Your task to perform on an android device: Add "usb-a to usb-b" to the cart on walmart.com, then select checkout. Image 0: 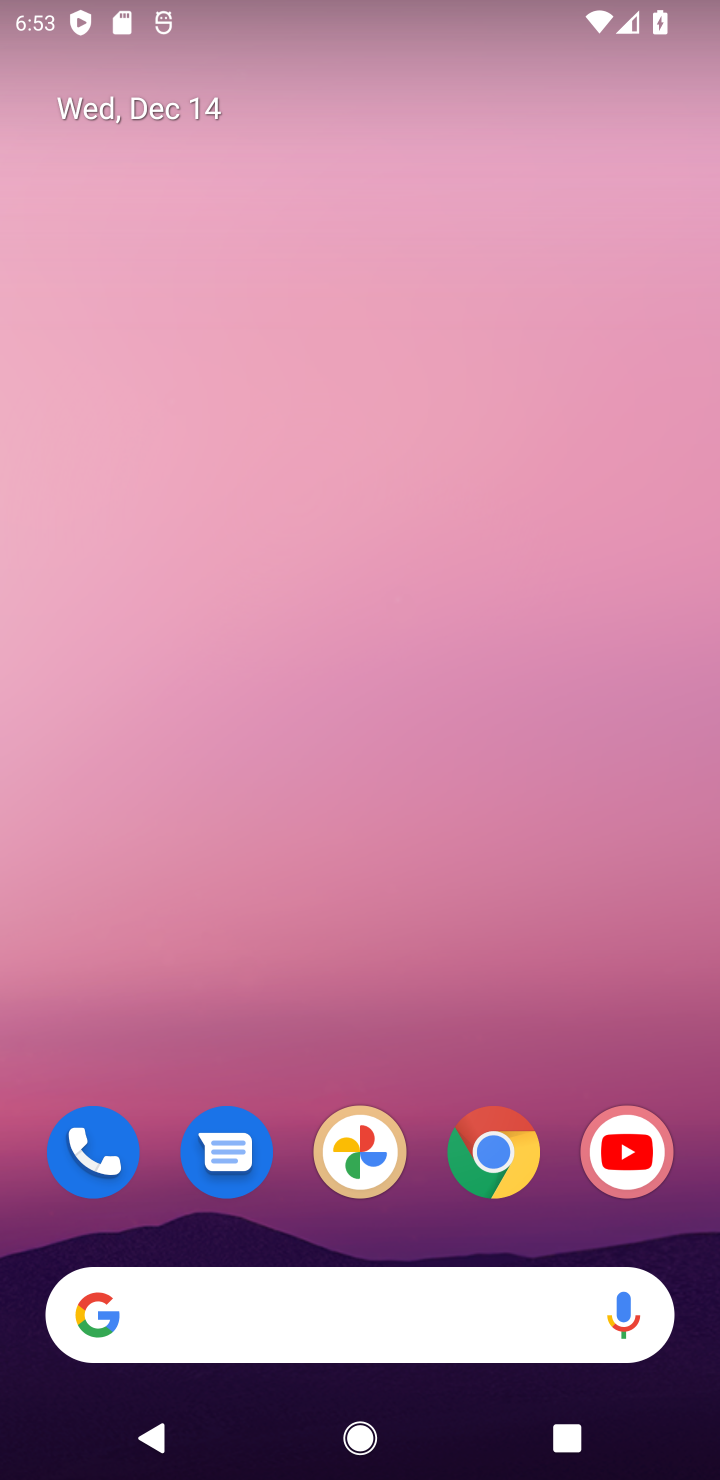
Step 0: click (495, 1163)
Your task to perform on an android device: Add "usb-a to usb-b" to the cart on walmart.com, then select checkout. Image 1: 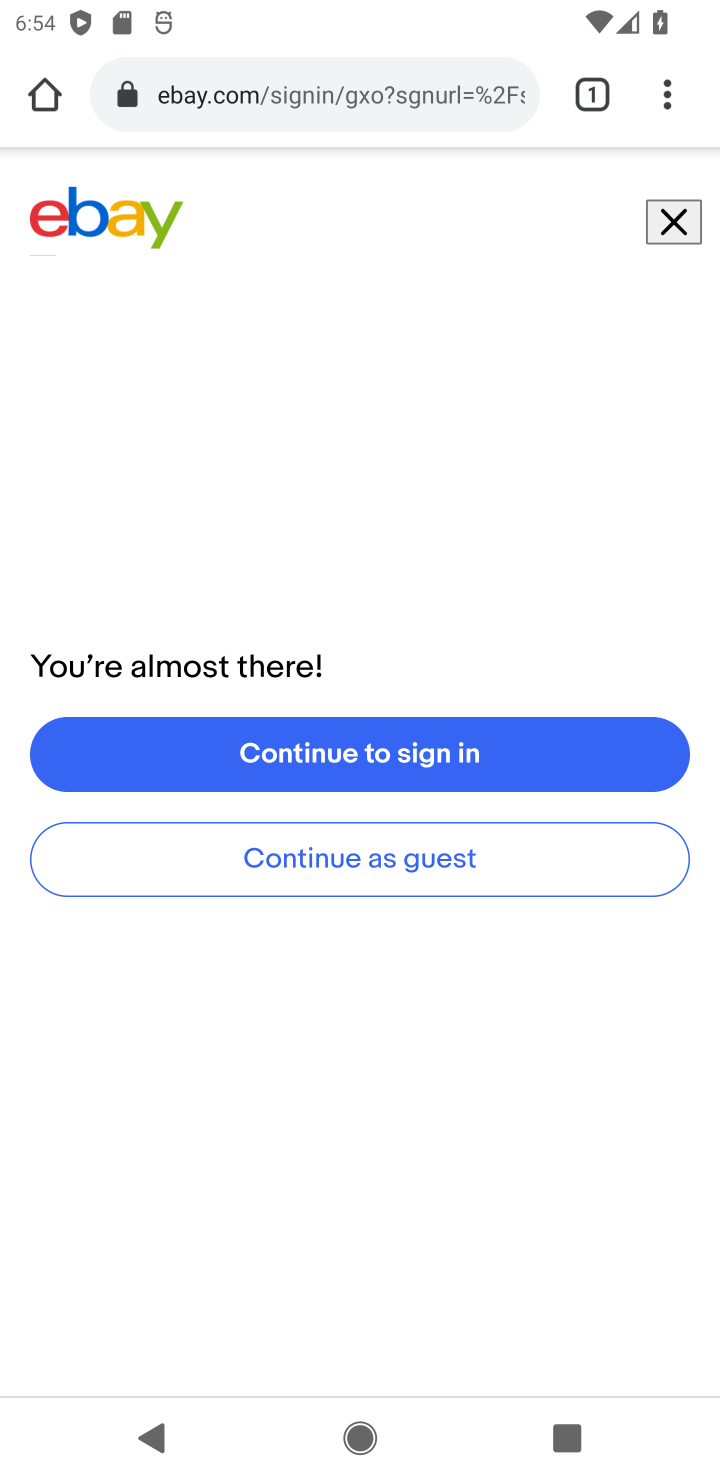
Step 1: click (280, 93)
Your task to perform on an android device: Add "usb-a to usb-b" to the cart on walmart.com, then select checkout. Image 2: 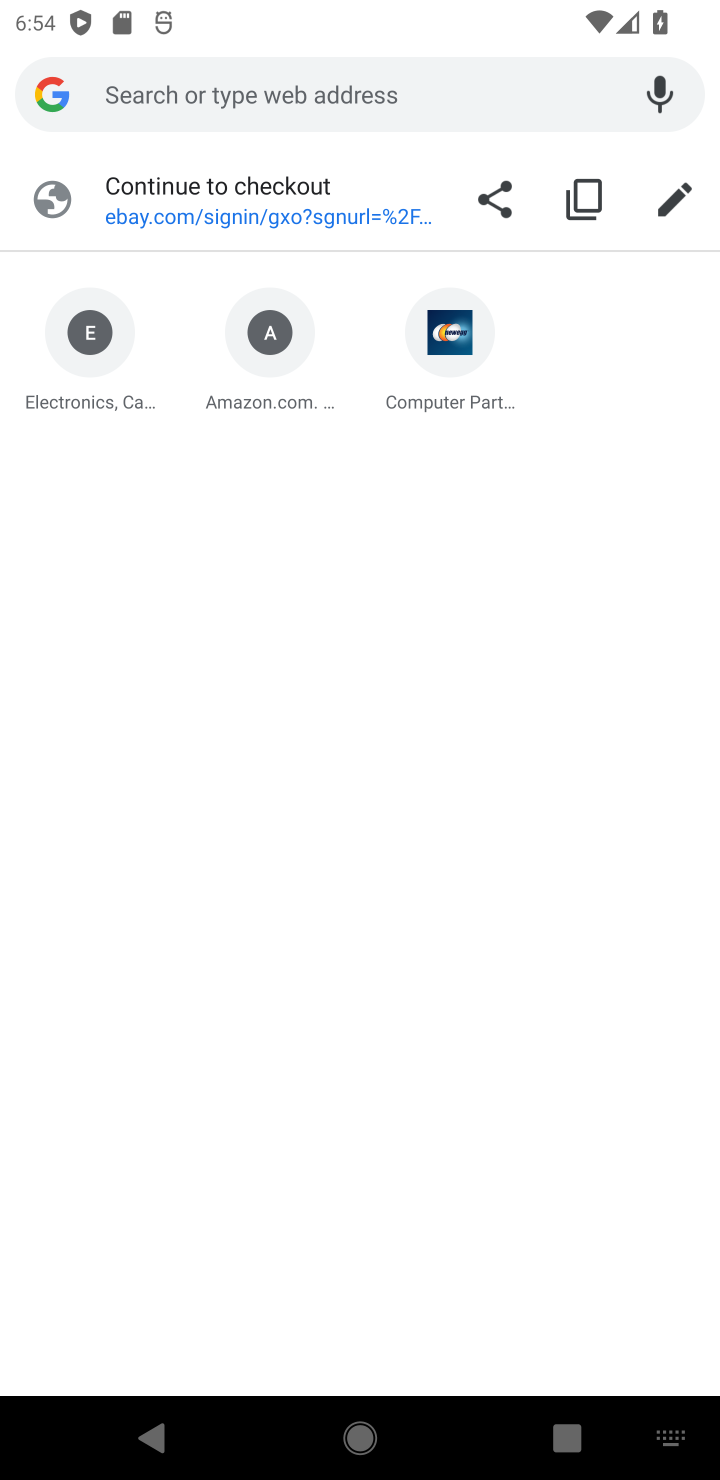
Step 2: type "walmart.com"
Your task to perform on an android device: Add "usb-a to usb-b" to the cart on walmart.com, then select checkout. Image 3: 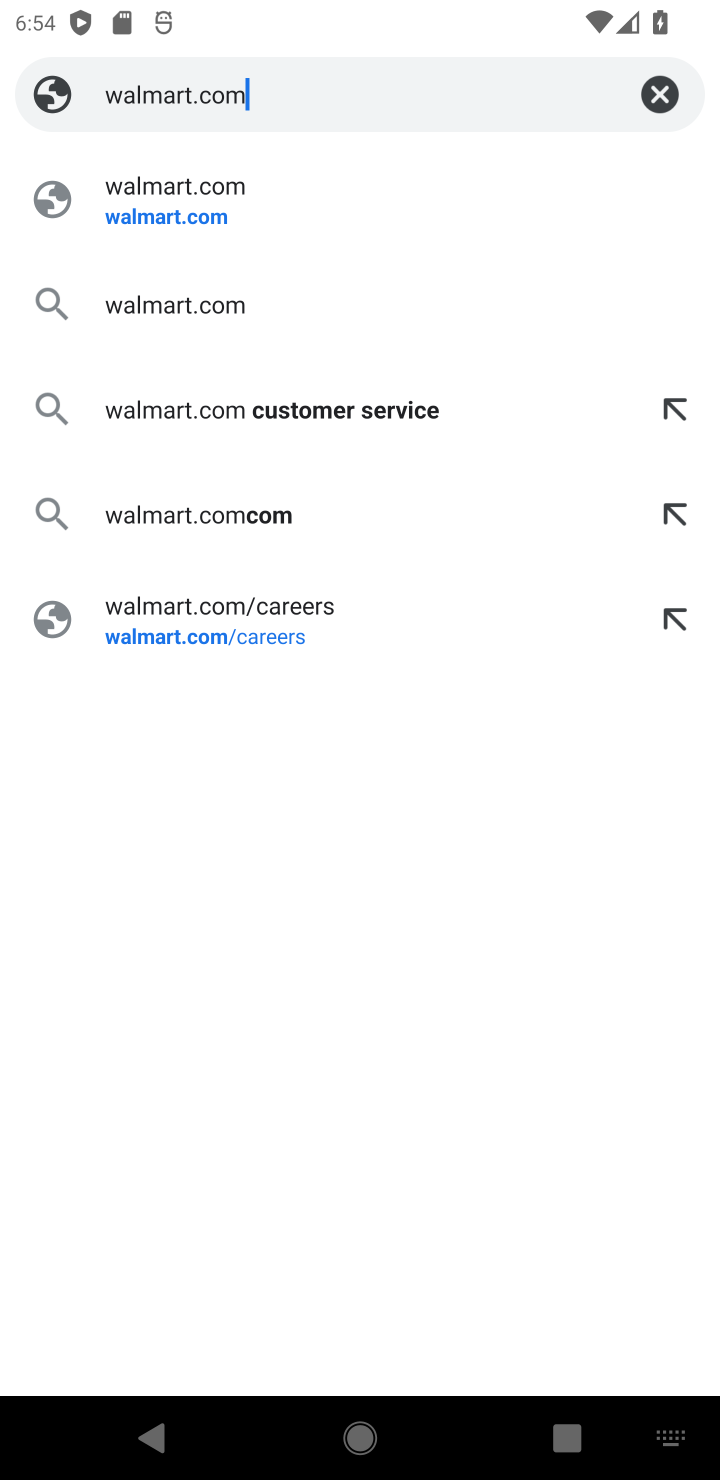
Step 3: click (151, 211)
Your task to perform on an android device: Add "usb-a to usb-b" to the cart on walmart.com, then select checkout. Image 4: 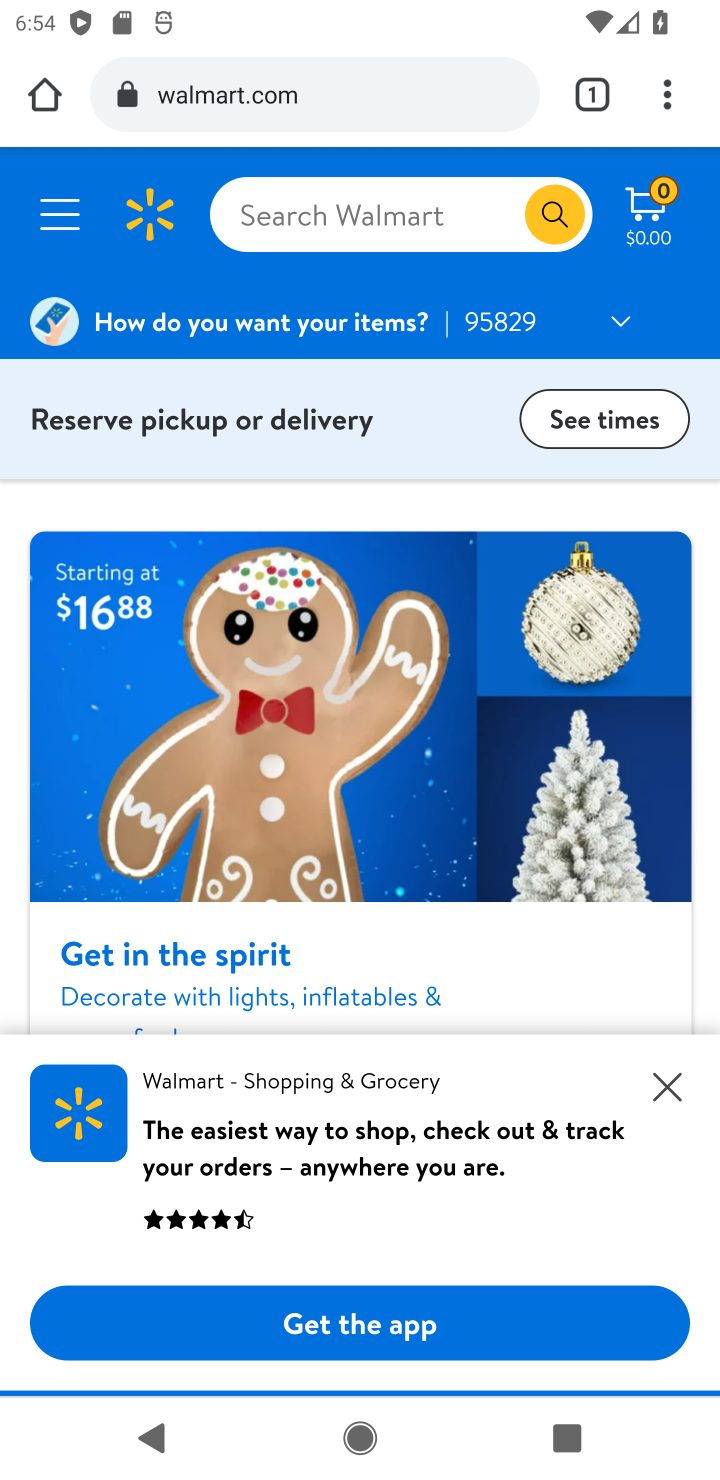
Step 4: click (278, 211)
Your task to perform on an android device: Add "usb-a to usb-b" to the cart on walmart.com, then select checkout. Image 5: 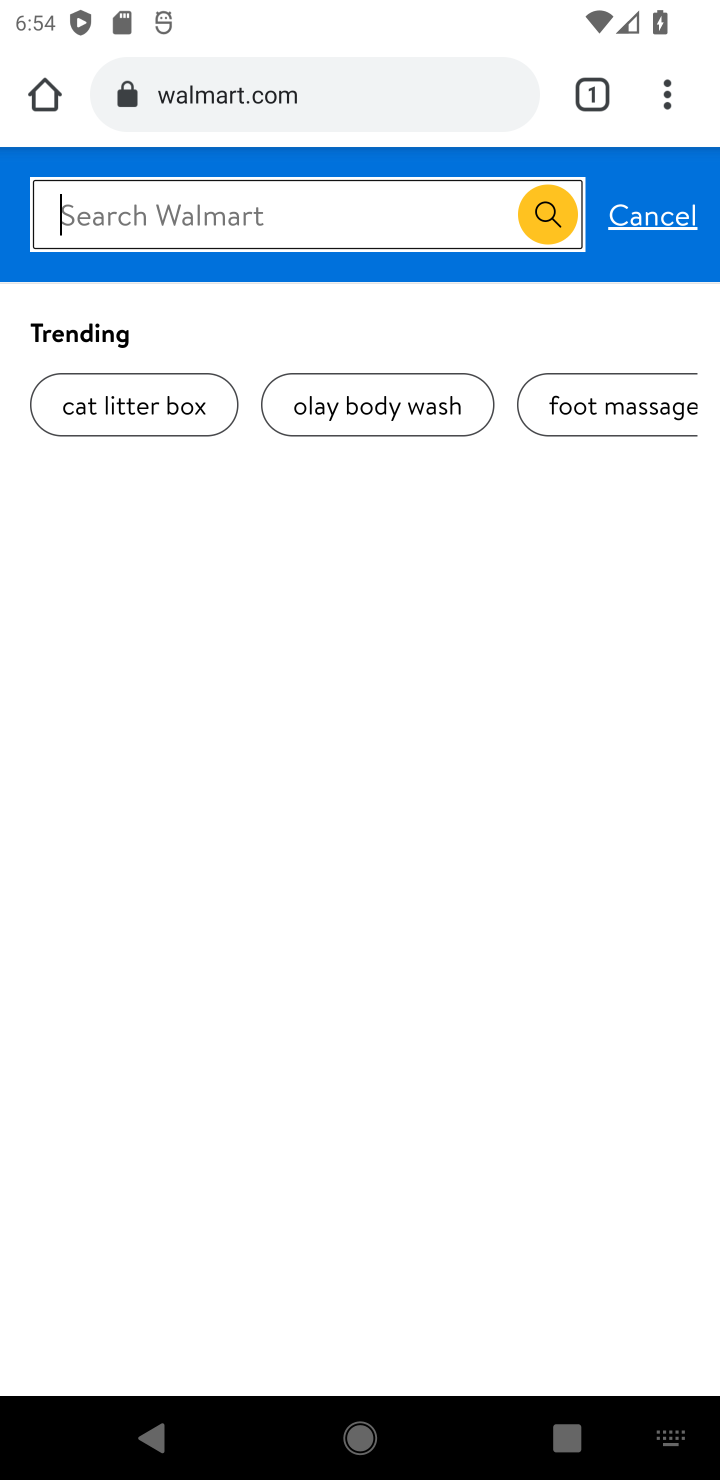
Step 5: type "usb-a to usb-b"
Your task to perform on an android device: Add "usb-a to usb-b" to the cart on walmart.com, then select checkout. Image 6: 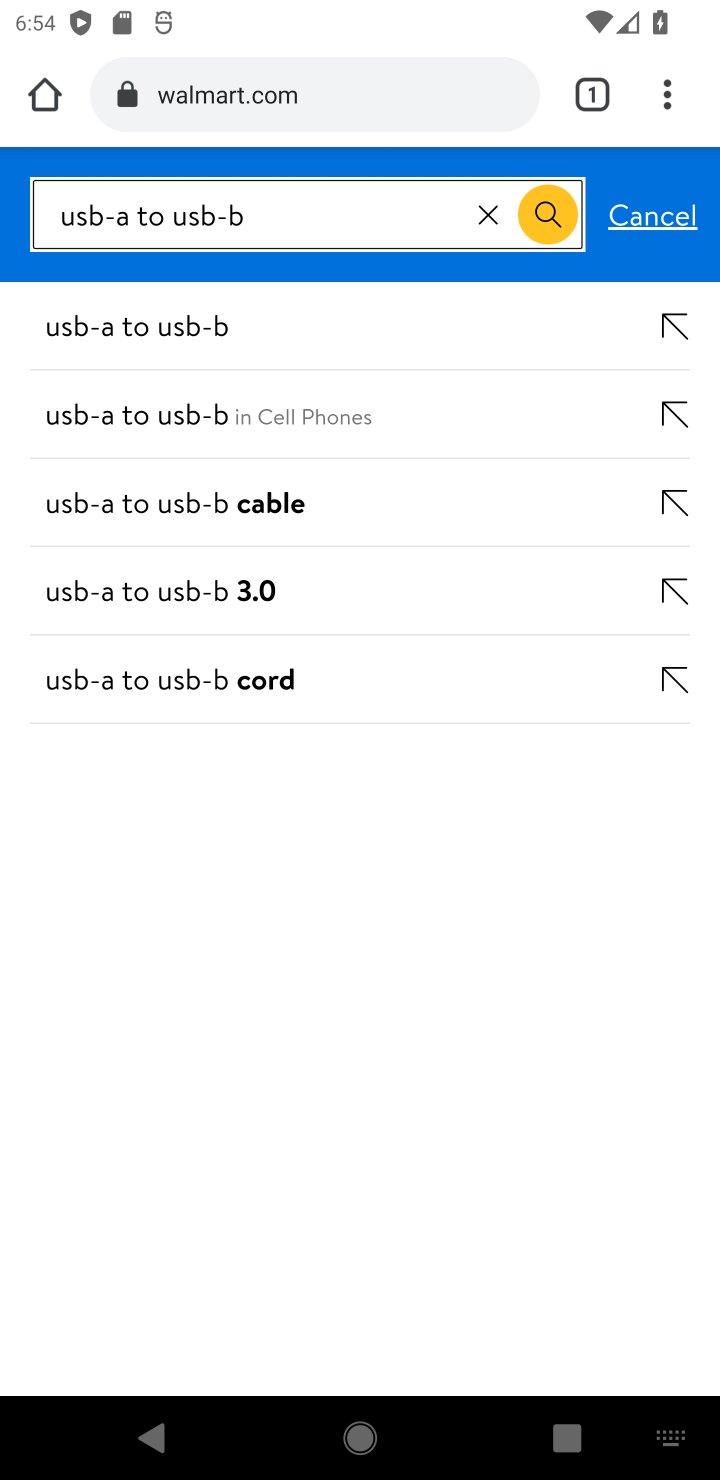
Step 6: click (199, 341)
Your task to perform on an android device: Add "usb-a to usb-b" to the cart on walmart.com, then select checkout. Image 7: 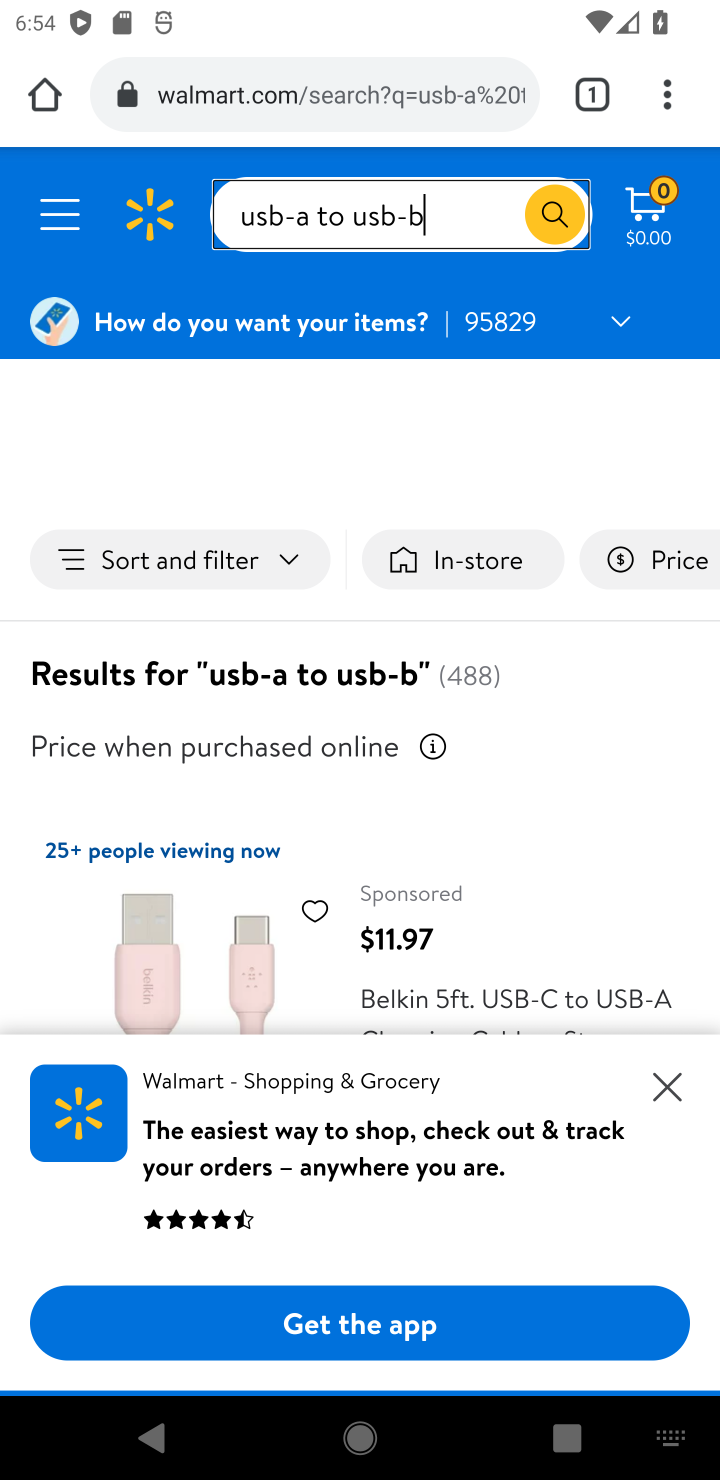
Step 7: drag from (480, 884) to (490, 422)
Your task to perform on an android device: Add "usb-a to usb-b" to the cart on walmart.com, then select checkout. Image 8: 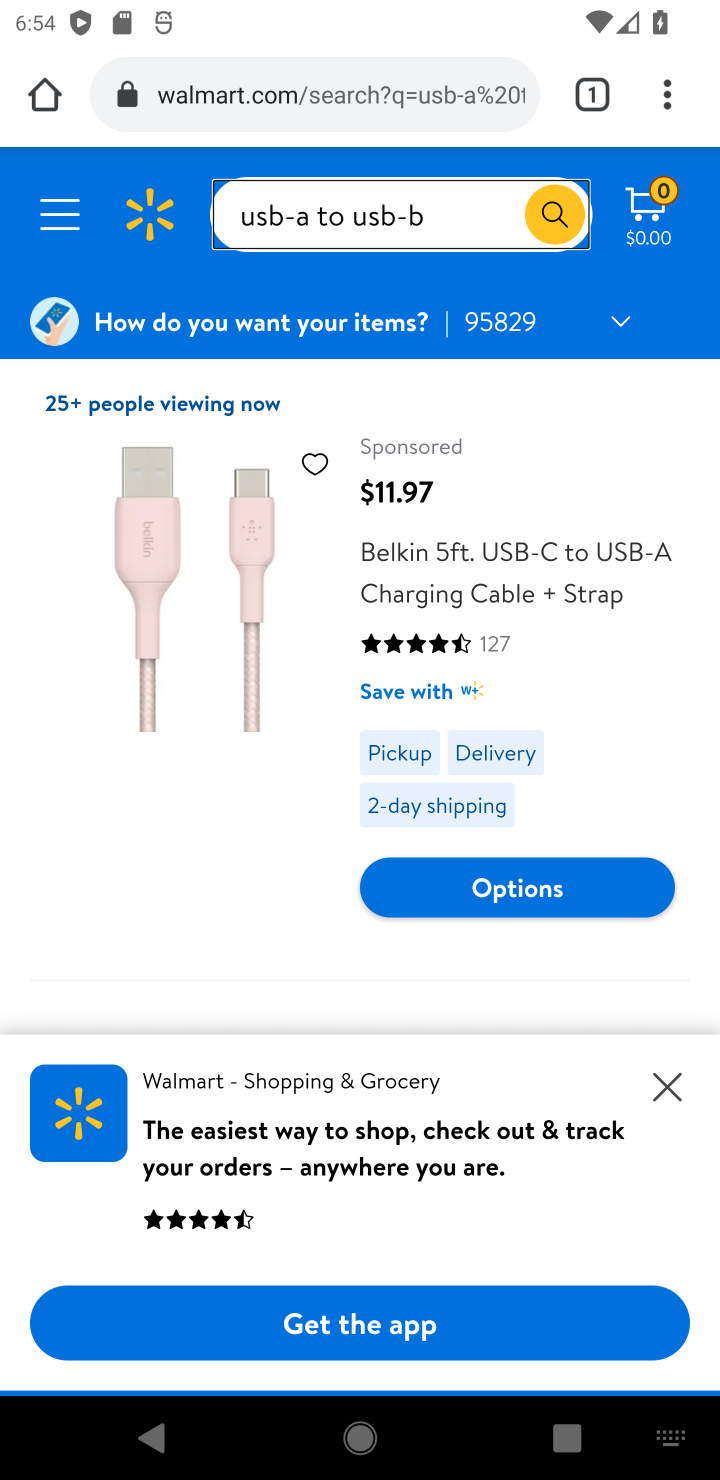
Step 8: click (669, 1095)
Your task to perform on an android device: Add "usb-a to usb-b" to the cart on walmart.com, then select checkout. Image 9: 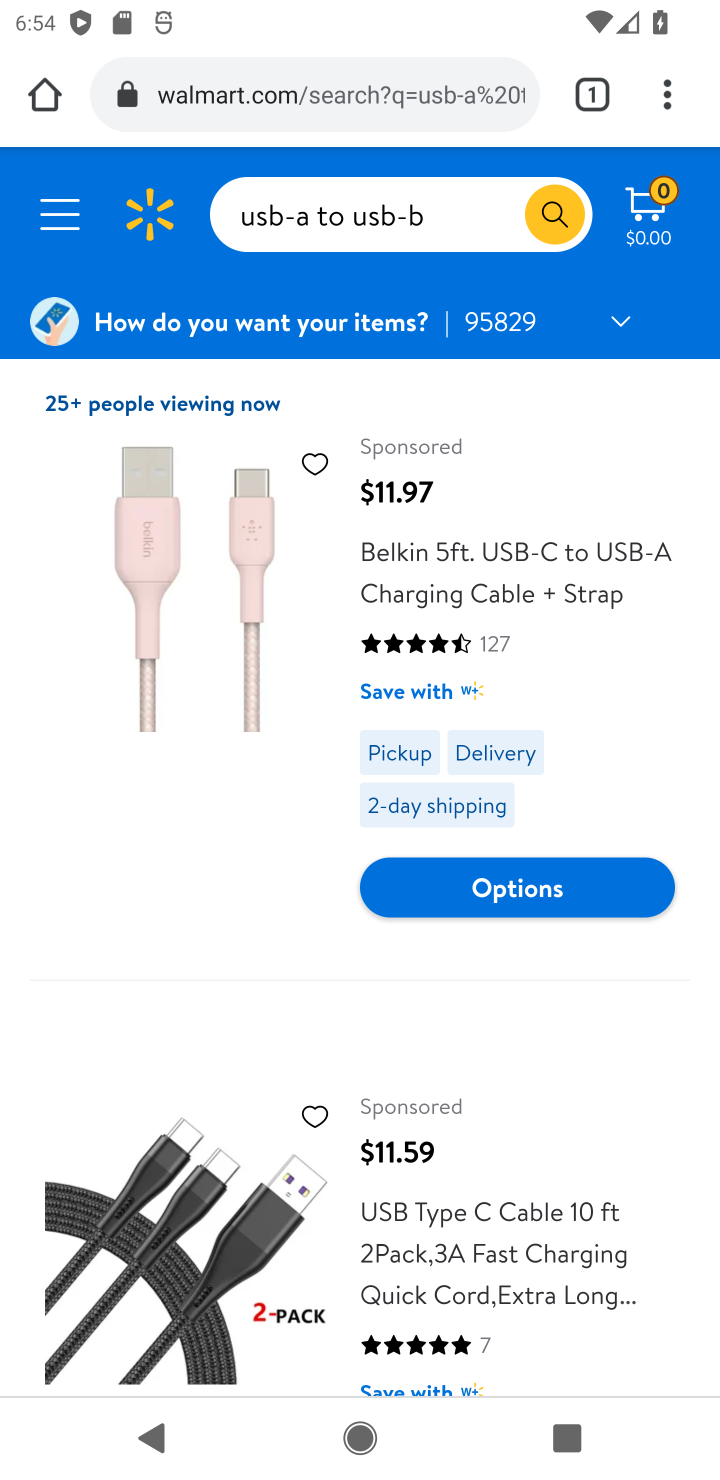
Step 9: drag from (223, 1049) to (257, 597)
Your task to perform on an android device: Add "usb-a to usb-b" to the cart on walmart.com, then select checkout. Image 10: 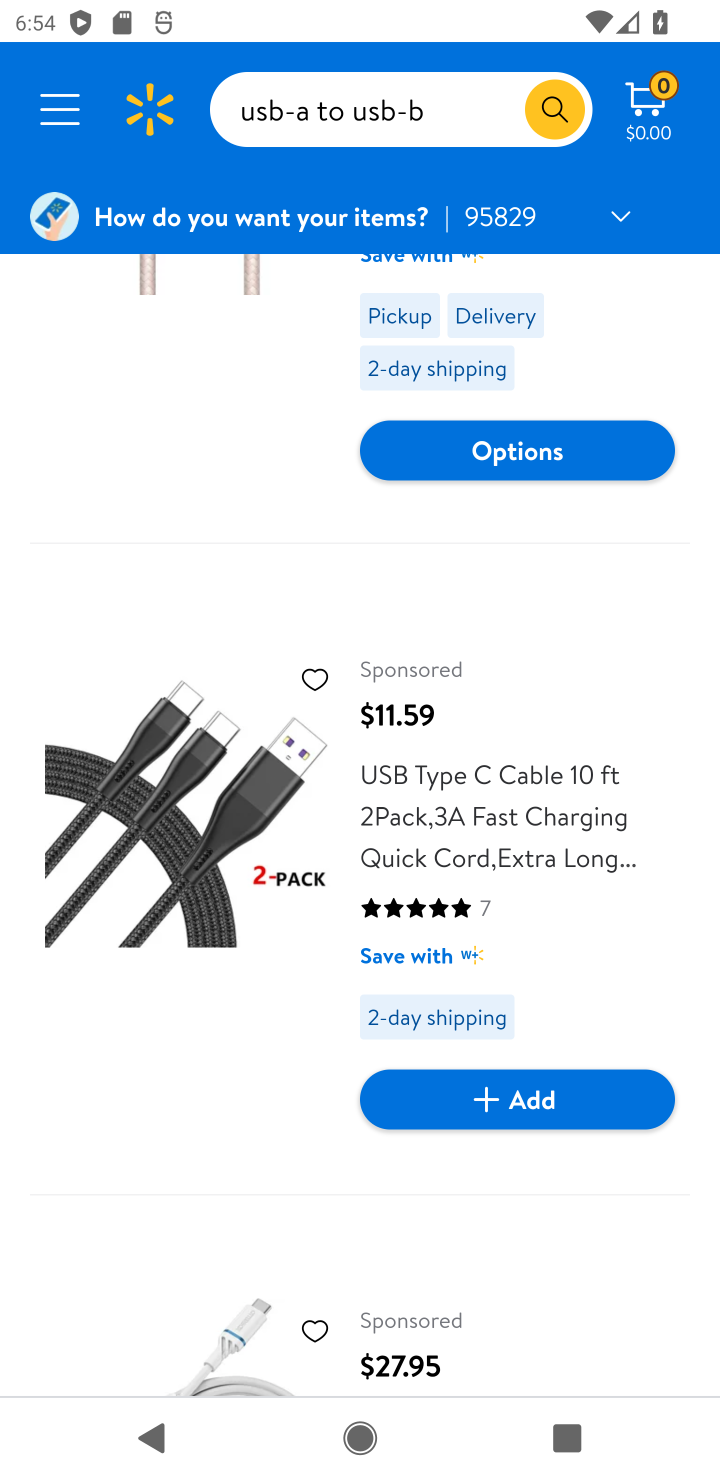
Step 10: drag from (161, 1006) to (177, 533)
Your task to perform on an android device: Add "usb-a to usb-b" to the cart on walmart.com, then select checkout. Image 11: 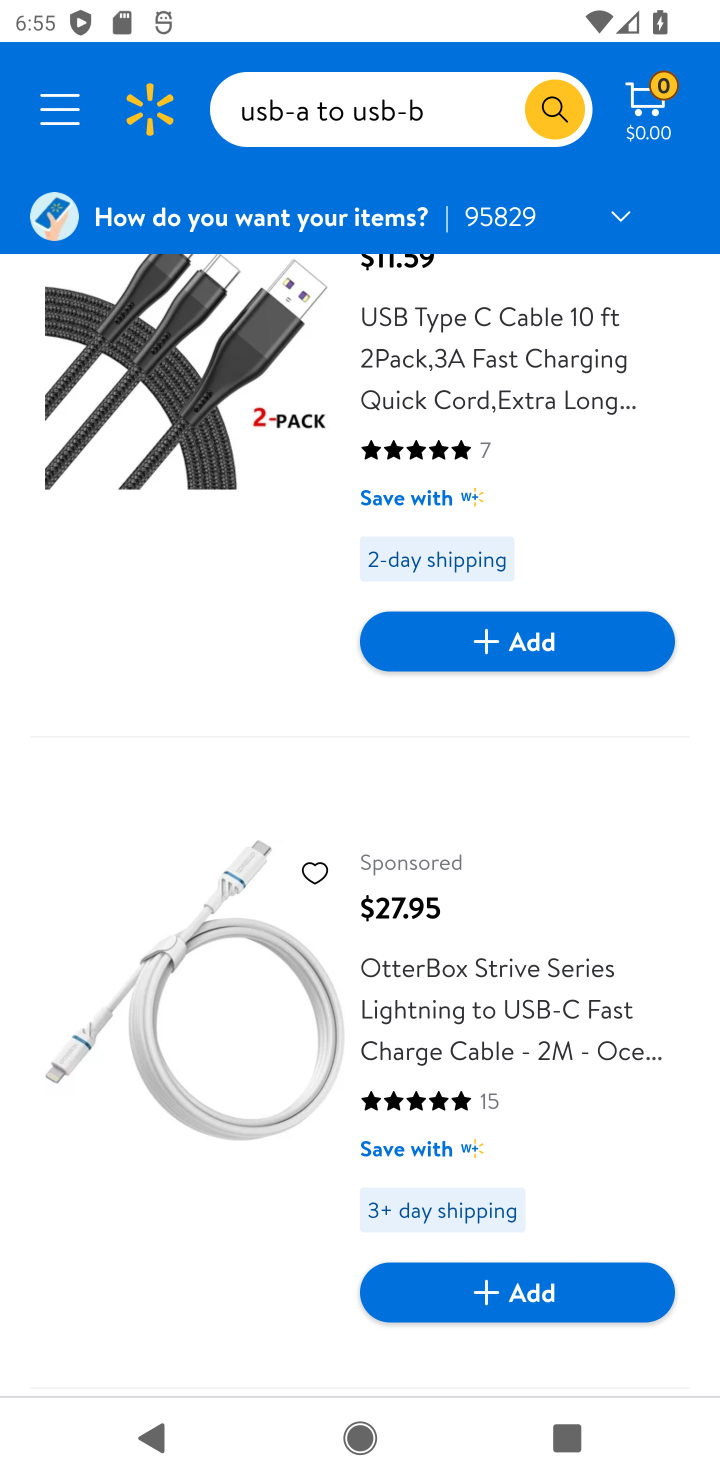
Step 11: drag from (181, 1115) to (168, 546)
Your task to perform on an android device: Add "usb-a to usb-b" to the cart on walmart.com, then select checkout. Image 12: 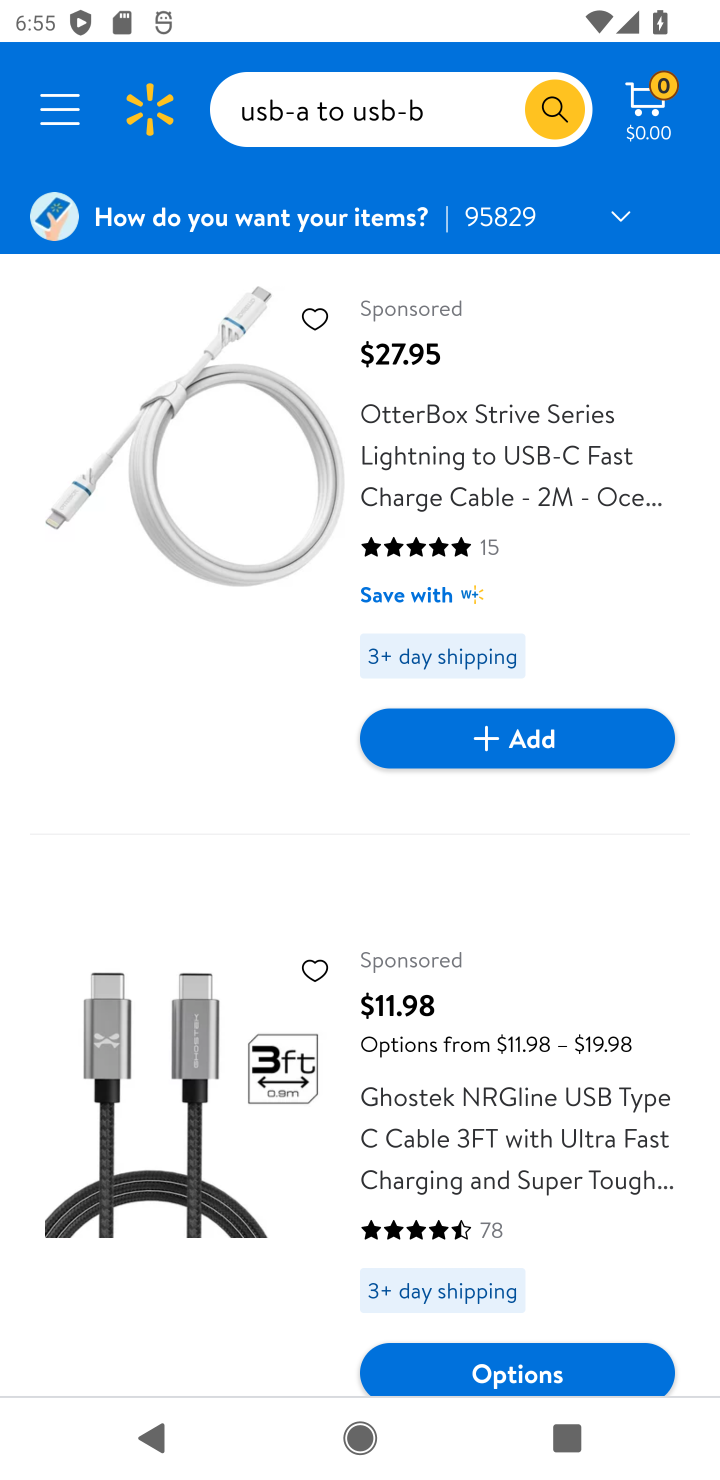
Step 12: drag from (141, 1151) to (147, 523)
Your task to perform on an android device: Add "usb-a to usb-b" to the cart on walmart.com, then select checkout. Image 13: 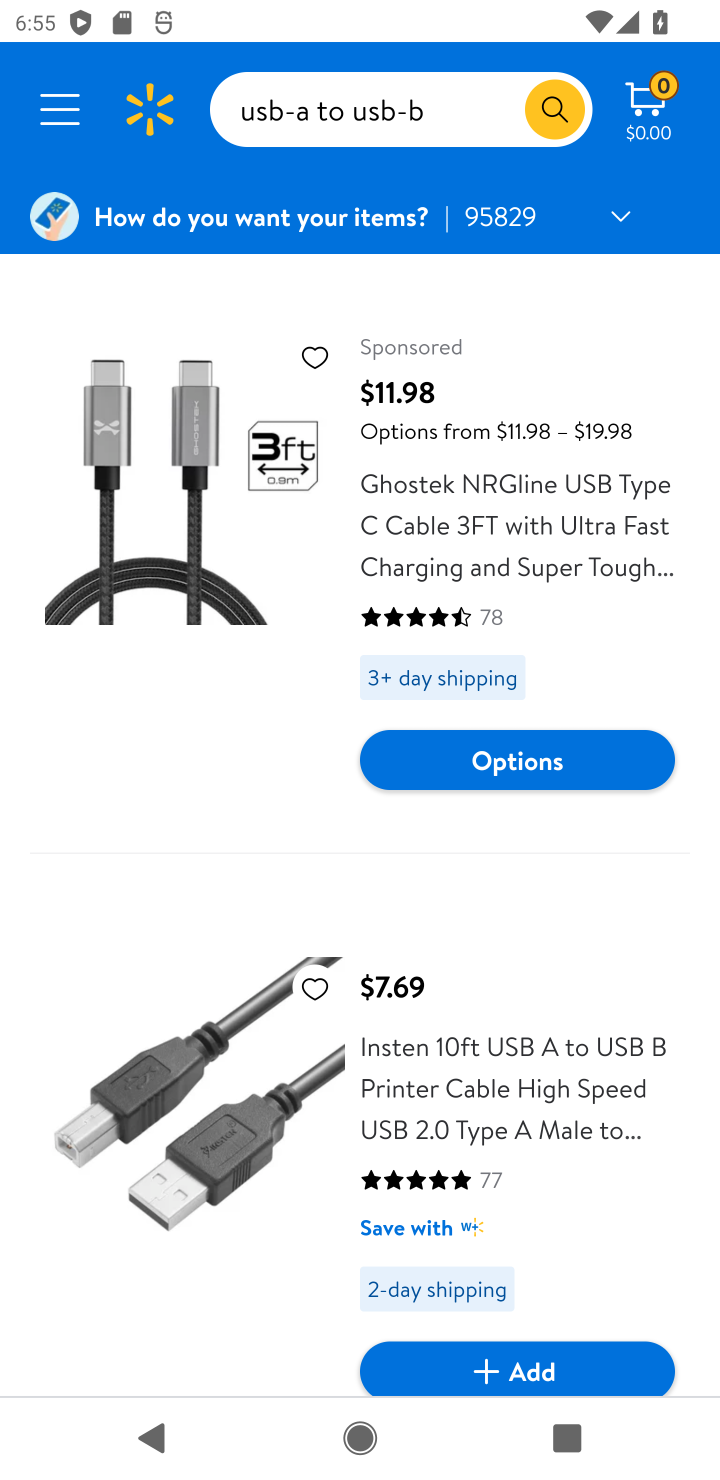
Step 13: click (567, 1377)
Your task to perform on an android device: Add "usb-a to usb-b" to the cart on walmart.com, then select checkout. Image 14: 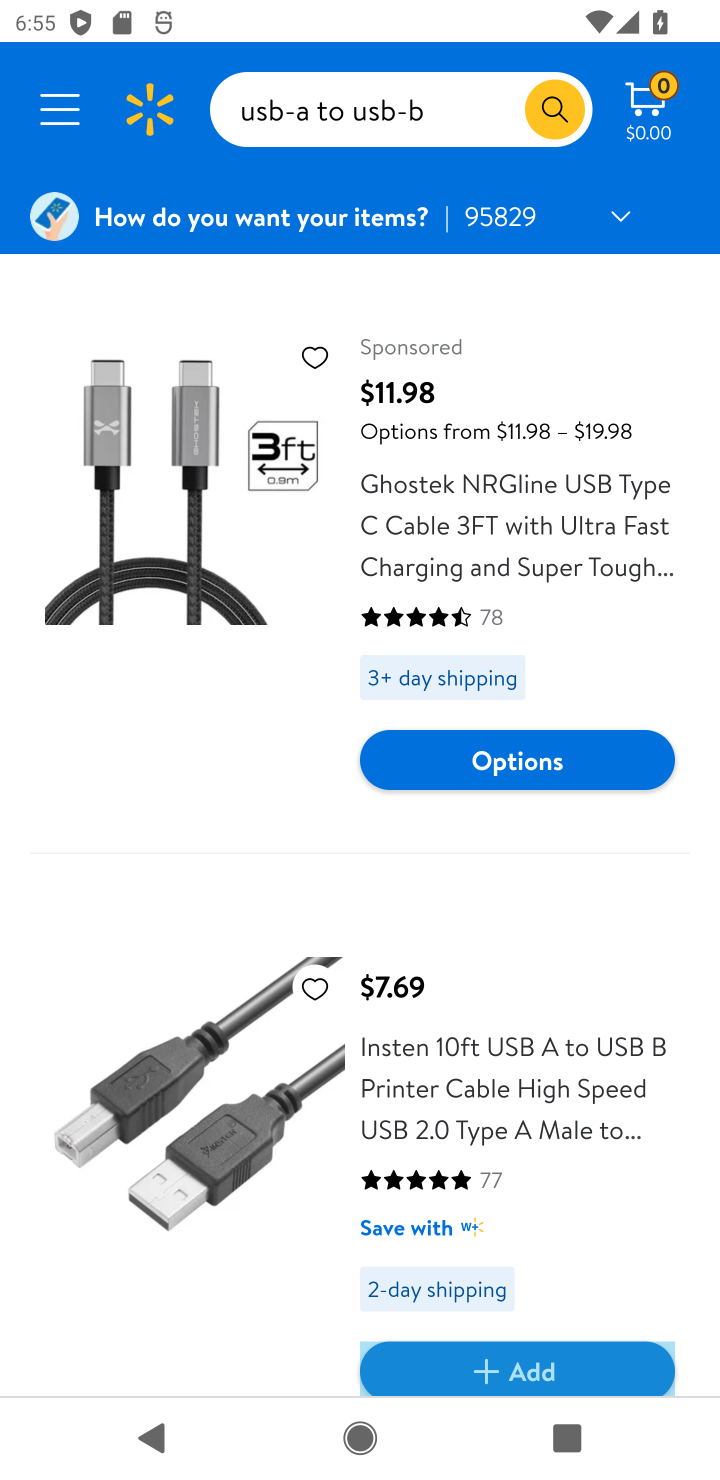
Step 14: drag from (477, 1194) to (441, 824)
Your task to perform on an android device: Add "usb-a to usb-b" to the cart on walmart.com, then select checkout. Image 15: 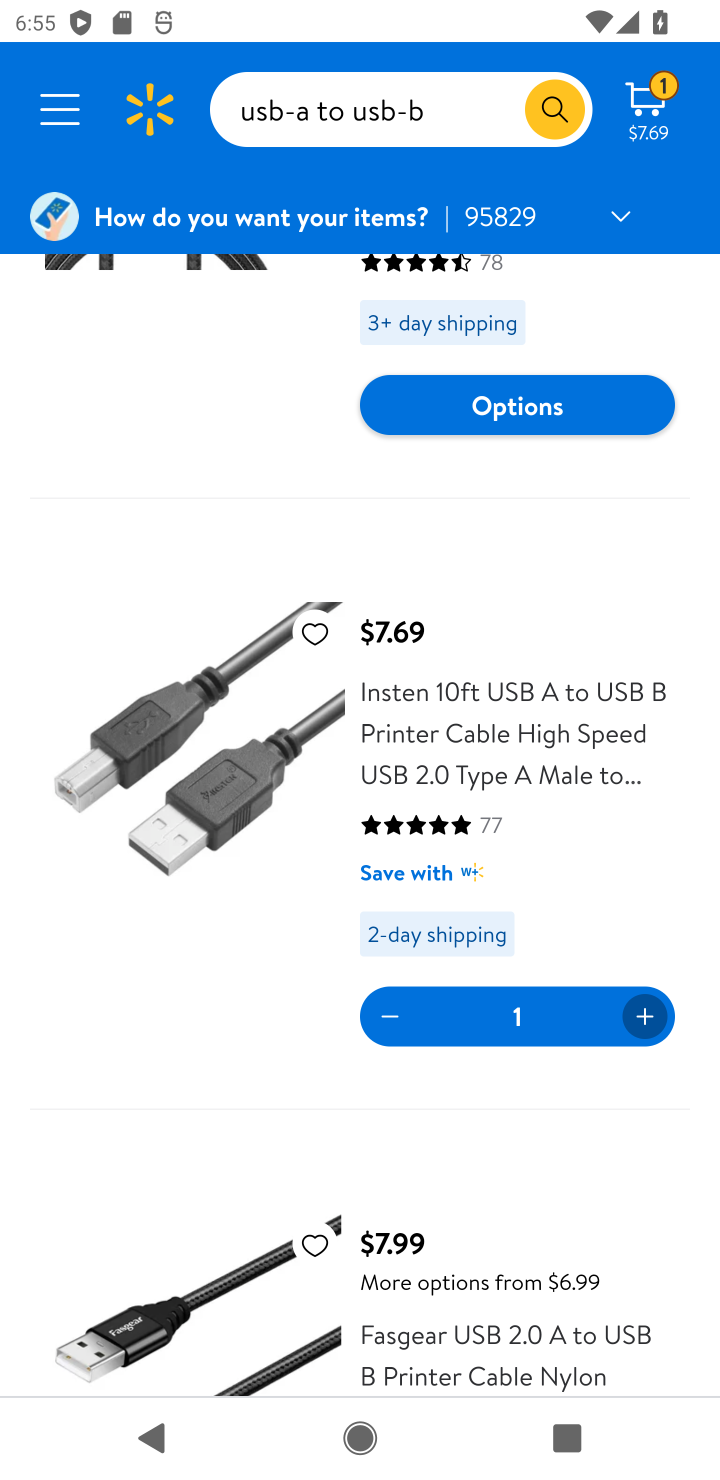
Step 15: click (649, 130)
Your task to perform on an android device: Add "usb-a to usb-b" to the cart on walmart.com, then select checkout. Image 16: 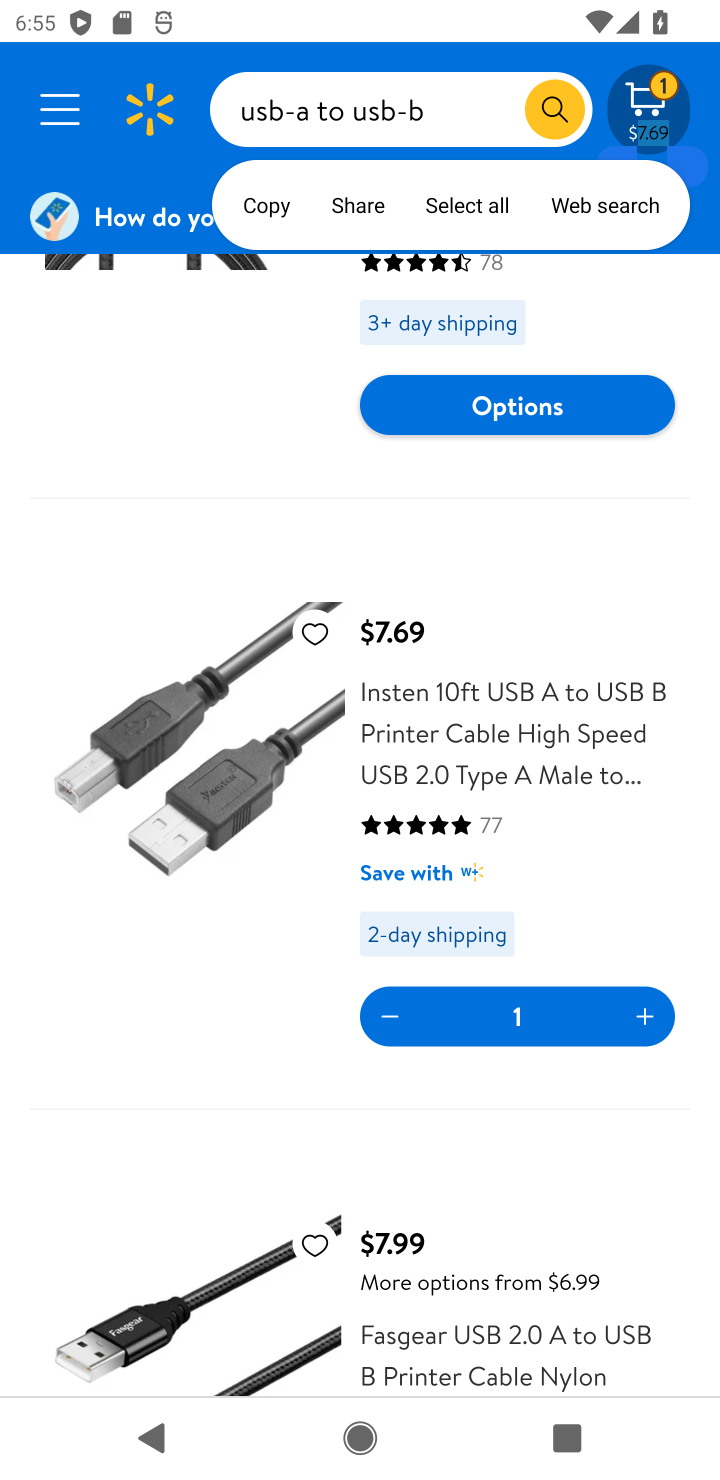
Step 16: click (659, 110)
Your task to perform on an android device: Add "usb-a to usb-b" to the cart on walmart.com, then select checkout. Image 17: 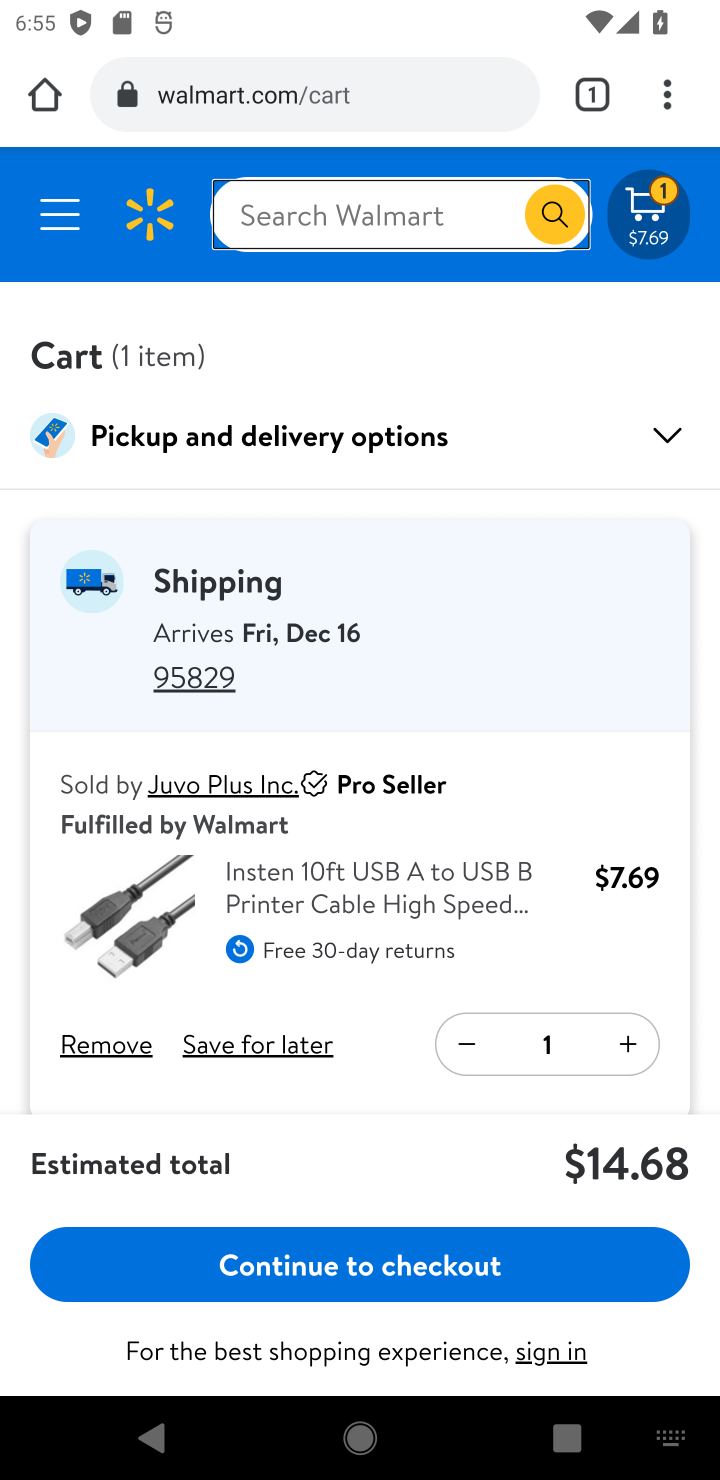
Step 17: click (400, 1244)
Your task to perform on an android device: Add "usb-a to usb-b" to the cart on walmart.com, then select checkout. Image 18: 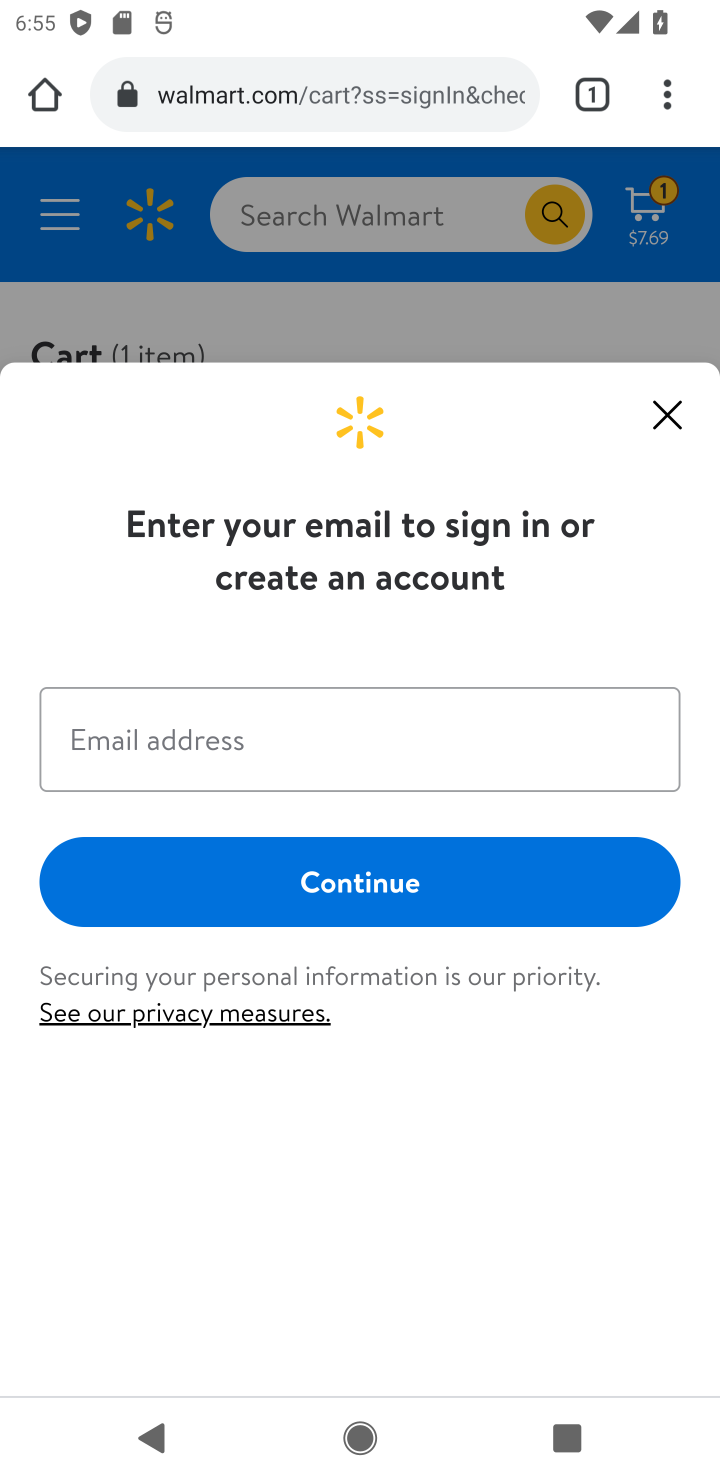
Step 18: task complete